Your task to perform on an android device: turn on notifications settings in the gmail app Image 0: 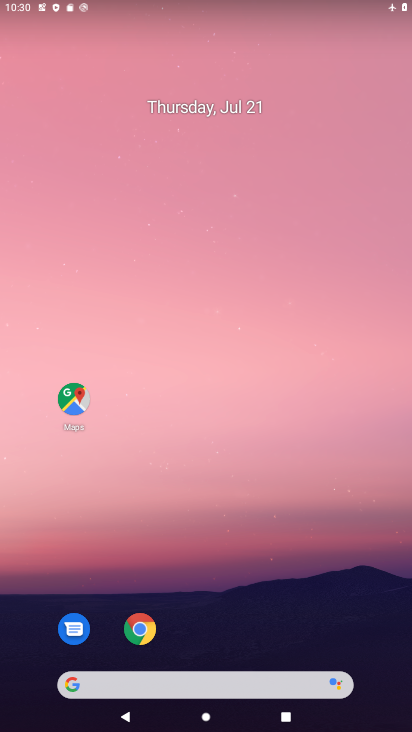
Step 0: drag from (222, 563) to (248, 348)
Your task to perform on an android device: turn on notifications settings in the gmail app Image 1: 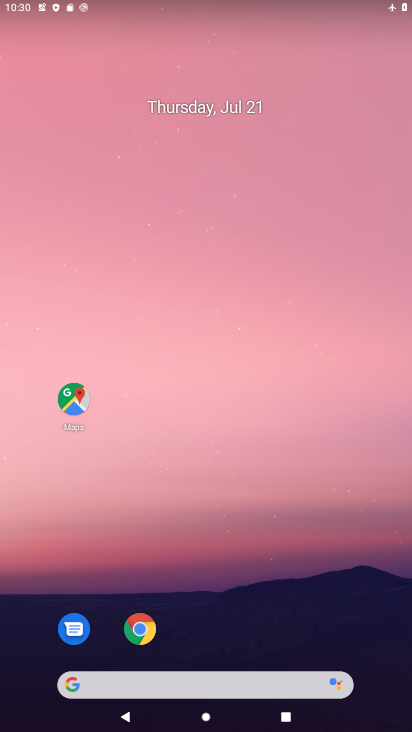
Step 1: drag from (257, 452) to (280, 233)
Your task to perform on an android device: turn on notifications settings in the gmail app Image 2: 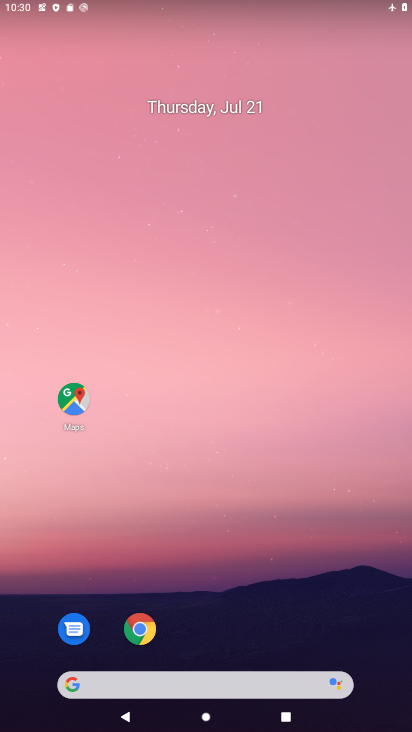
Step 2: drag from (262, 565) to (266, 300)
Your task to perform on an android device: turn on notifications settings in the gmail app Image 3: 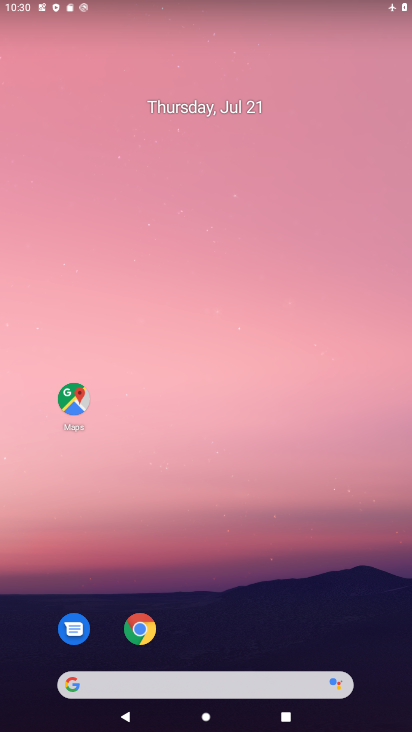
Step 3: drag from (212, 548) to (279, 115)
Your task to perform on an android device: turn on notifications settings in the gmail app Image 4: 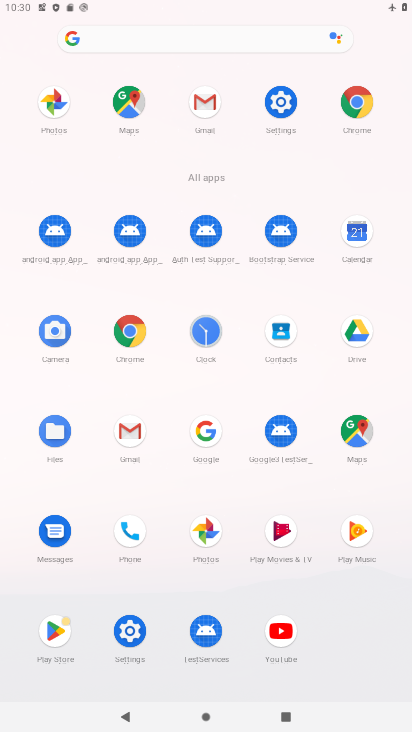
Step 4: click (212, 101)
Your task to perform on an android device: turn on notifications settings in the gmail app Image 5: 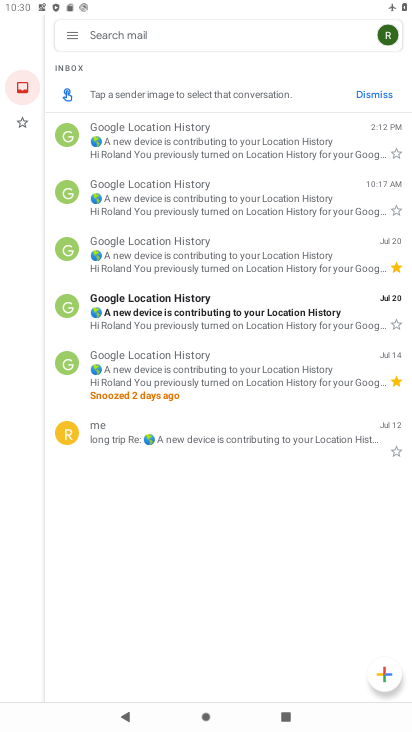
Step 5: task complete